Your task to perform on an android device: visit the assistant section in the google photos Image 0: 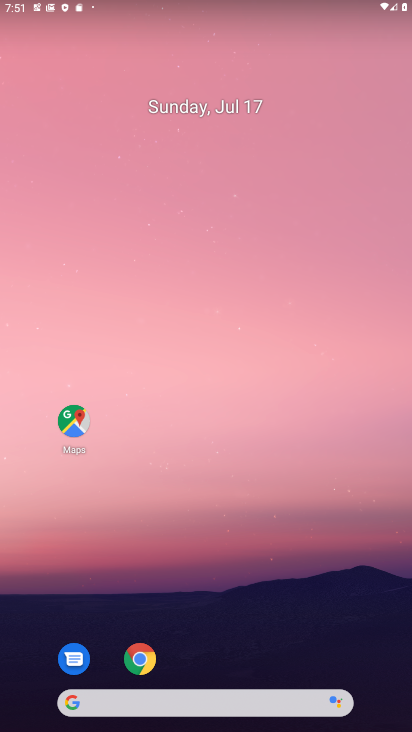
Step 0: drag from (209, 654) to (211, 139)
Your task to perform on an android device: visit the assistant section in the google photos Image 1: 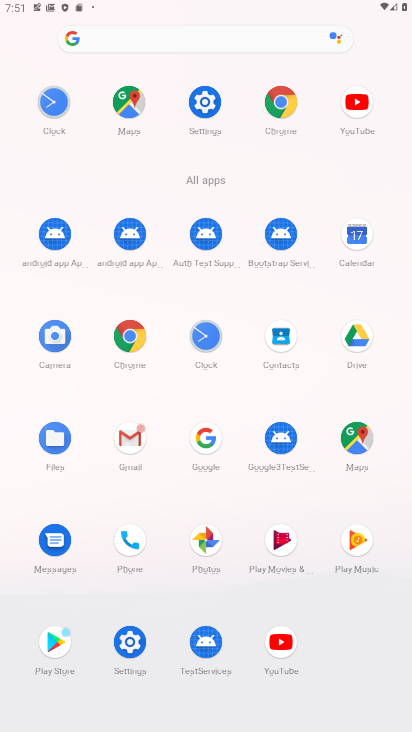
Step 1: click (213, 541)
Your task to perform on an android device: visit the assistant section in the google photos Image 2: 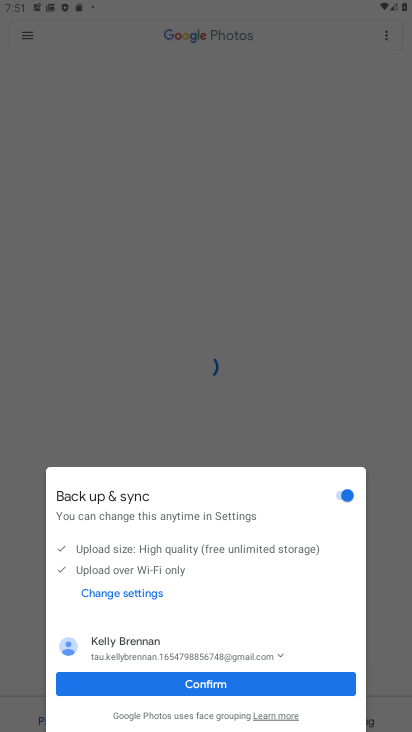
Step 2: click (223, 682)
Your task to perform on an android device: visit the assistant section in the google photos Image 3: 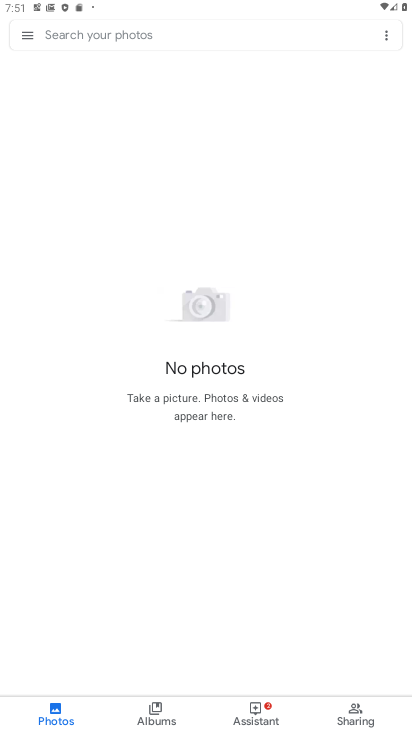
Step 3: click (249, 707)
Your task to perform on an android device: visit the assistant section in the google photos Image 4: 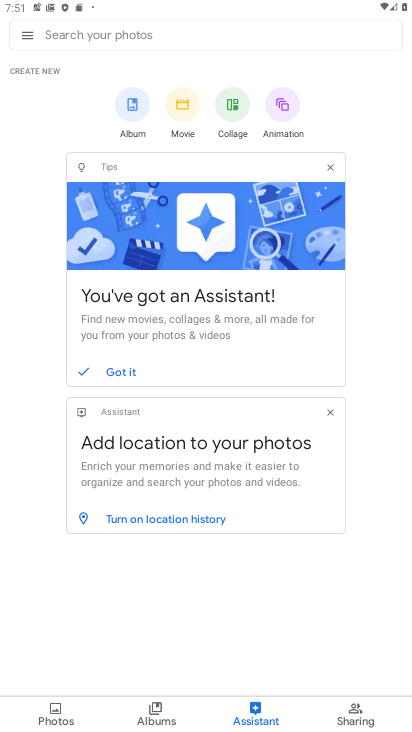
Step 4: task complete